Your task to perform on an android device: Open calendar and show me the fourth week of next month Image 0: 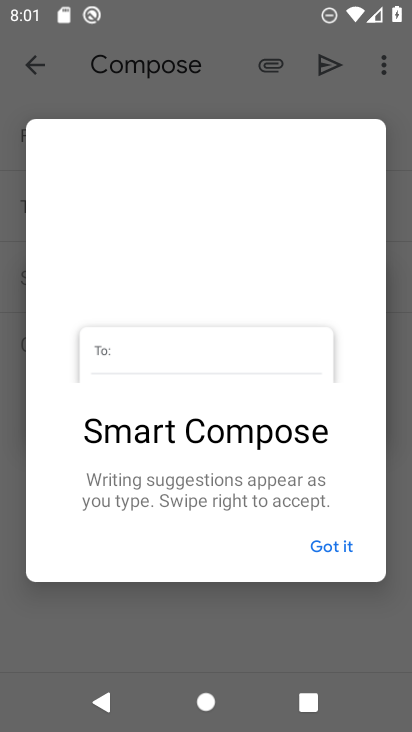
Step 0: press home button
Your task to perform on an android device: Open calendar and show me the fourth week of next month Image 1: 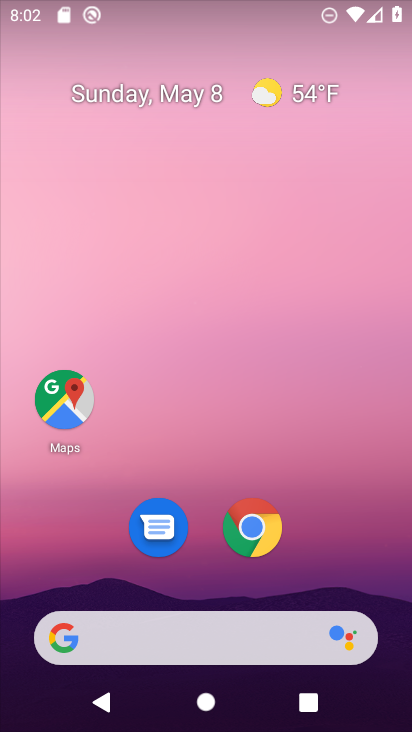
Step 1: drag from (305, 428) to (265, 143)
Your task to perform on an android device: Open calendar and show me the fourth week of next month Image 2: 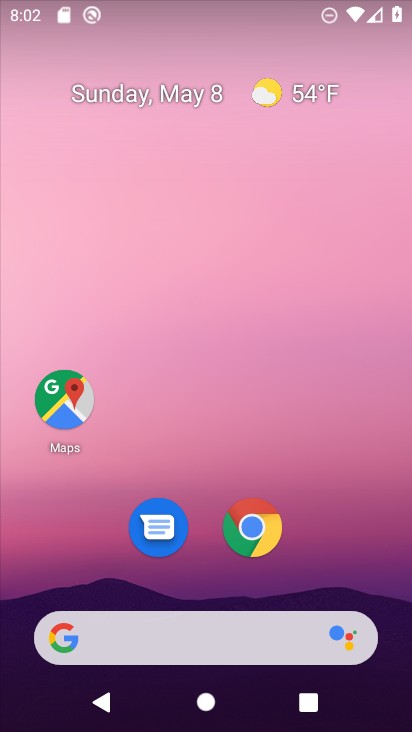
Step 2: drag from (297, 572) to (310, 104)
Your task to perform on an android device: Open calendar and show me the fourth week of next month Image 3: 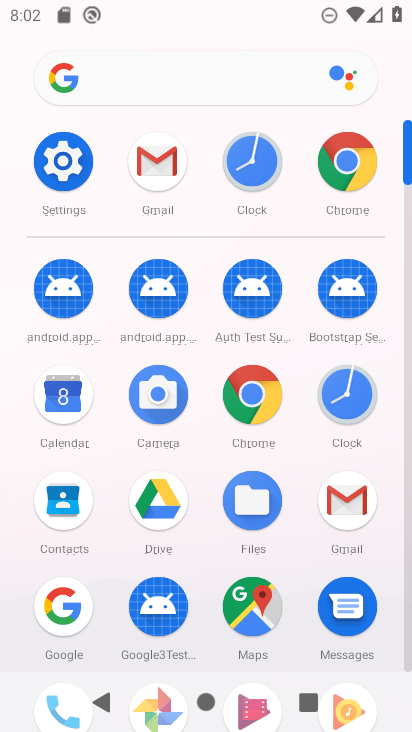
Step 3: click (59, 395)
Your task to perform on an android device: Open calendar and show me the fourth week of next month Image 4: 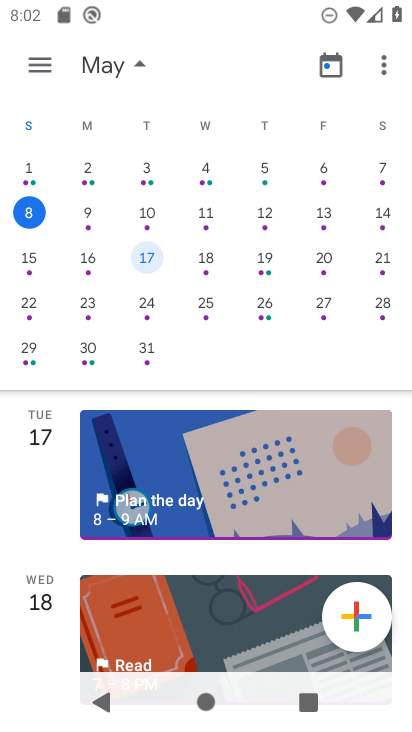
Step 4: drag from (367, 223) to (8, 233)
Your task to perform on an android device: Open calendar and show me the fourth week of next month Image 5: 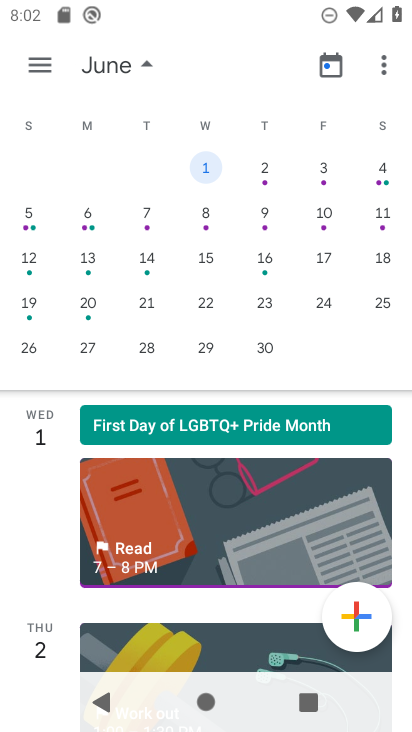
Step 5: click (86, 346)
Your task to perform on an android device: Open calendar and show me the fourth week of next month Image 6: 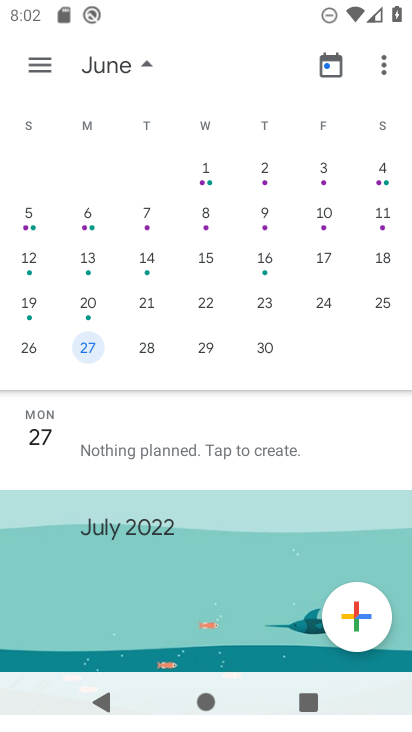
Step 6: task complete